Your task to perform on an android device: View the shopping cart on costco. Add usb-b to the cart on costco Image 0: 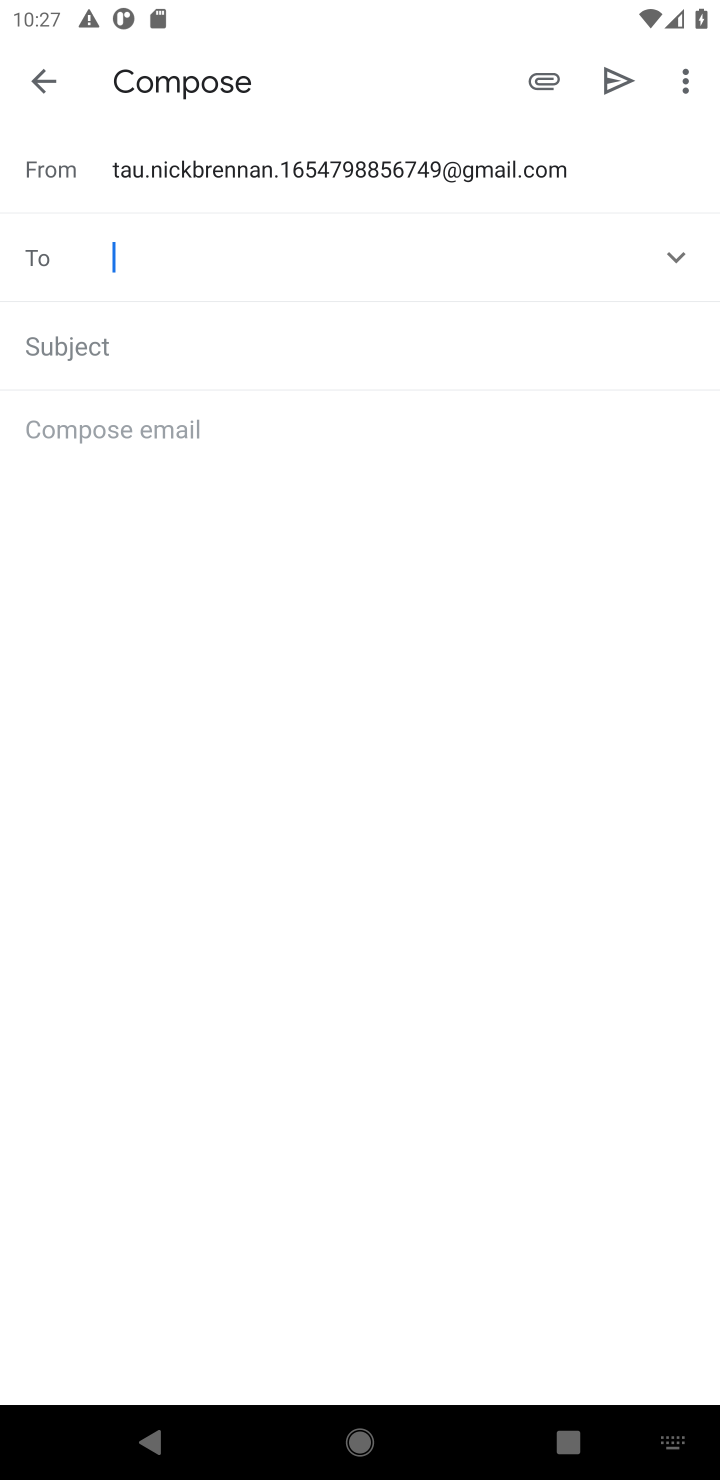
Step 0: press home button
Your task to perform on an android device: View the shopping cart on costco. Add usb-b to the cart on costco Image 1: 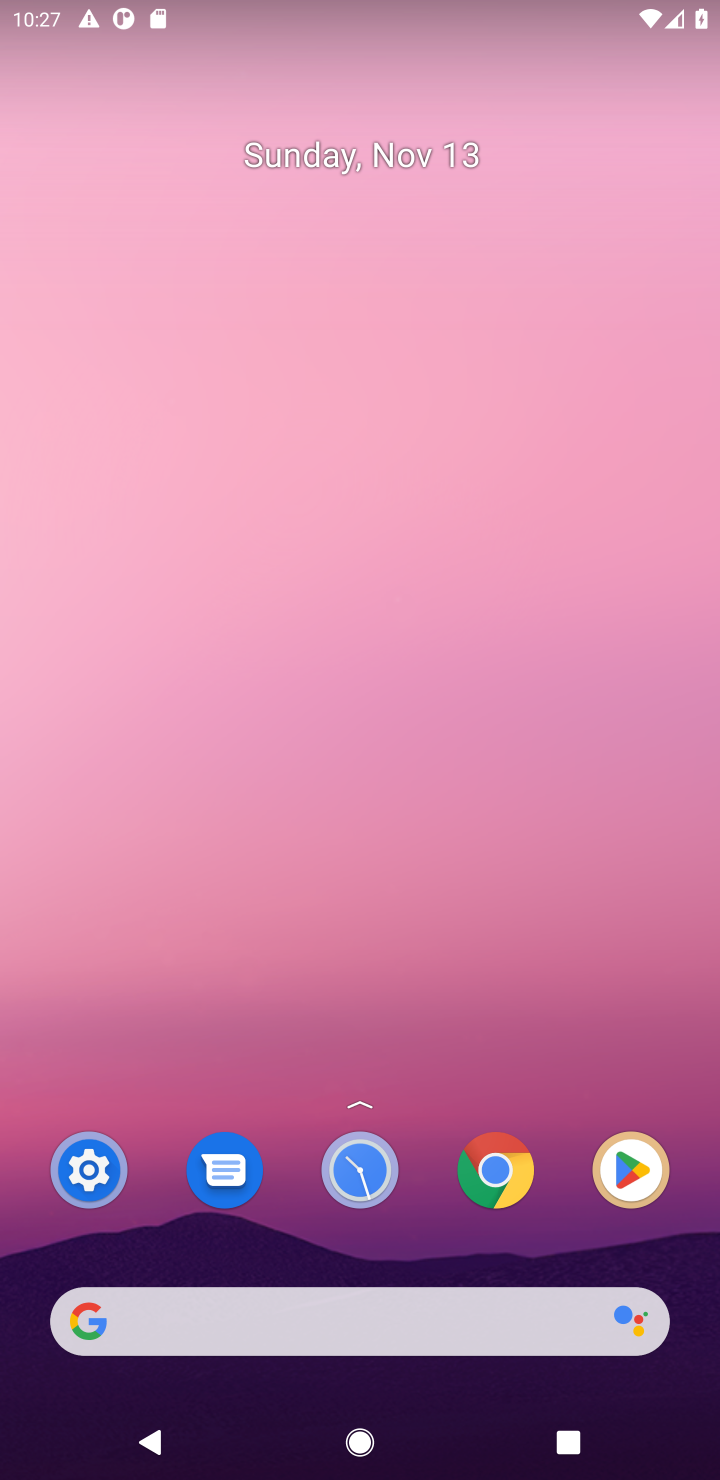
Step 1: click (377, 1321)
Your task to perform on an android device: View the shopping cart on costco. Add usb-b to the cart on costco Image 2: 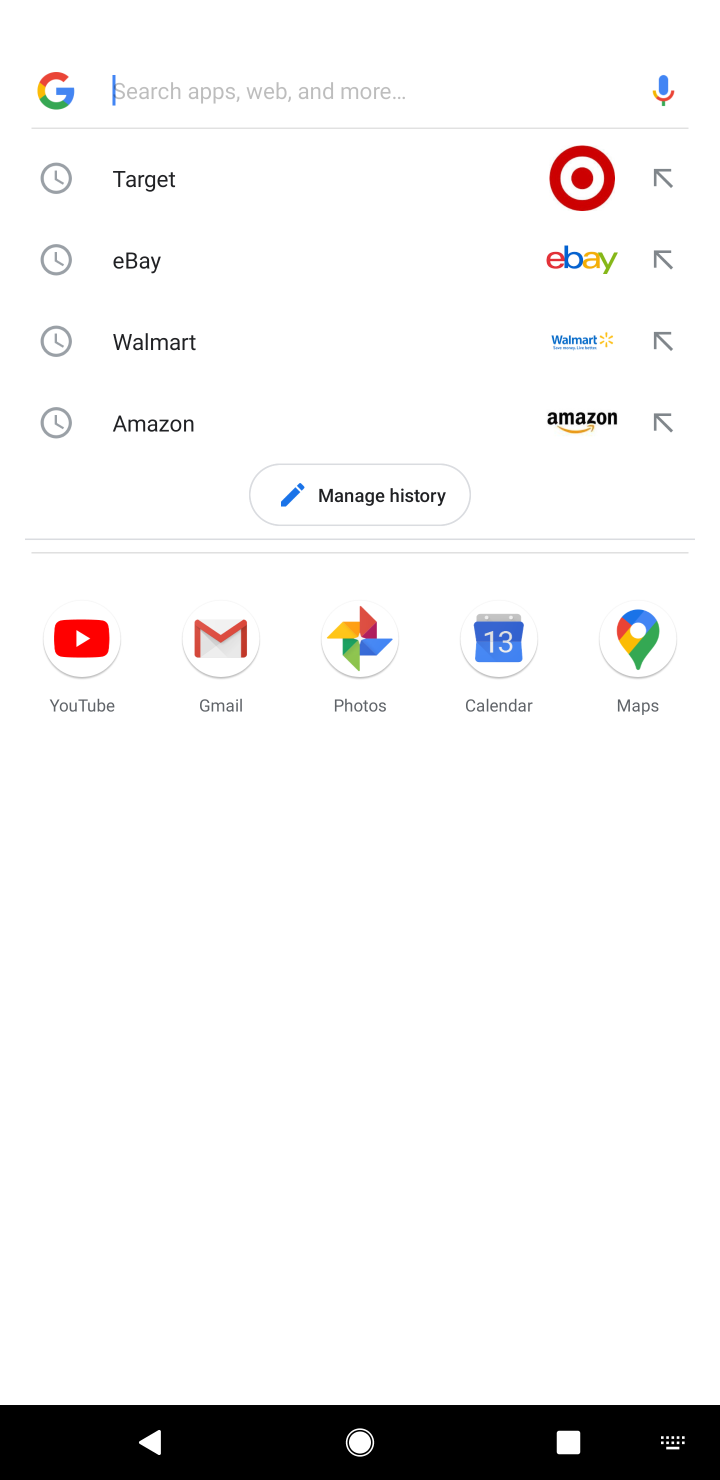
Step 2: type "costco.com"
Your task to perform on an android device: View the shopping cart on costco. Add usb-b to the cart on costco Image 3: 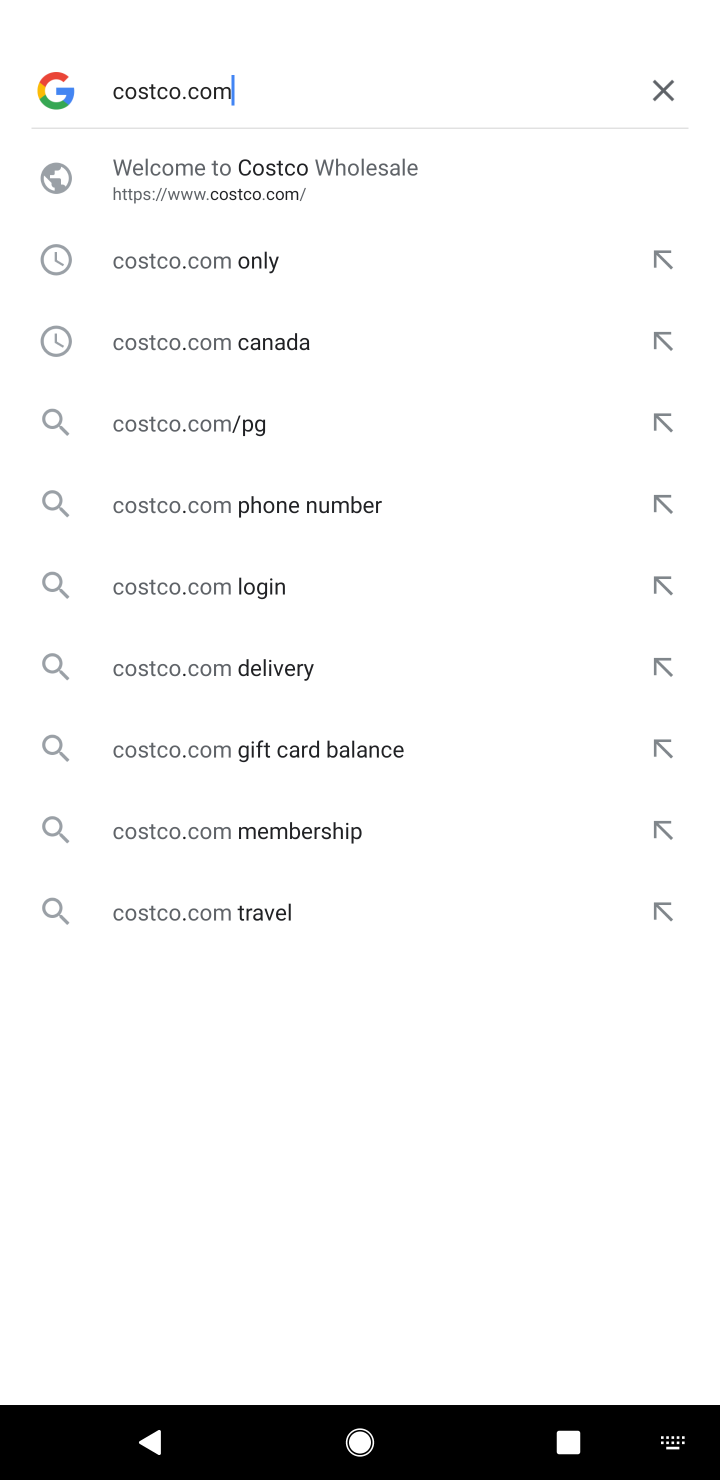
Step 3: click (211, 160)
Your task to perform on an android device: View the shopping cart on costco. Add usb-b to the cart on costco Image 4: 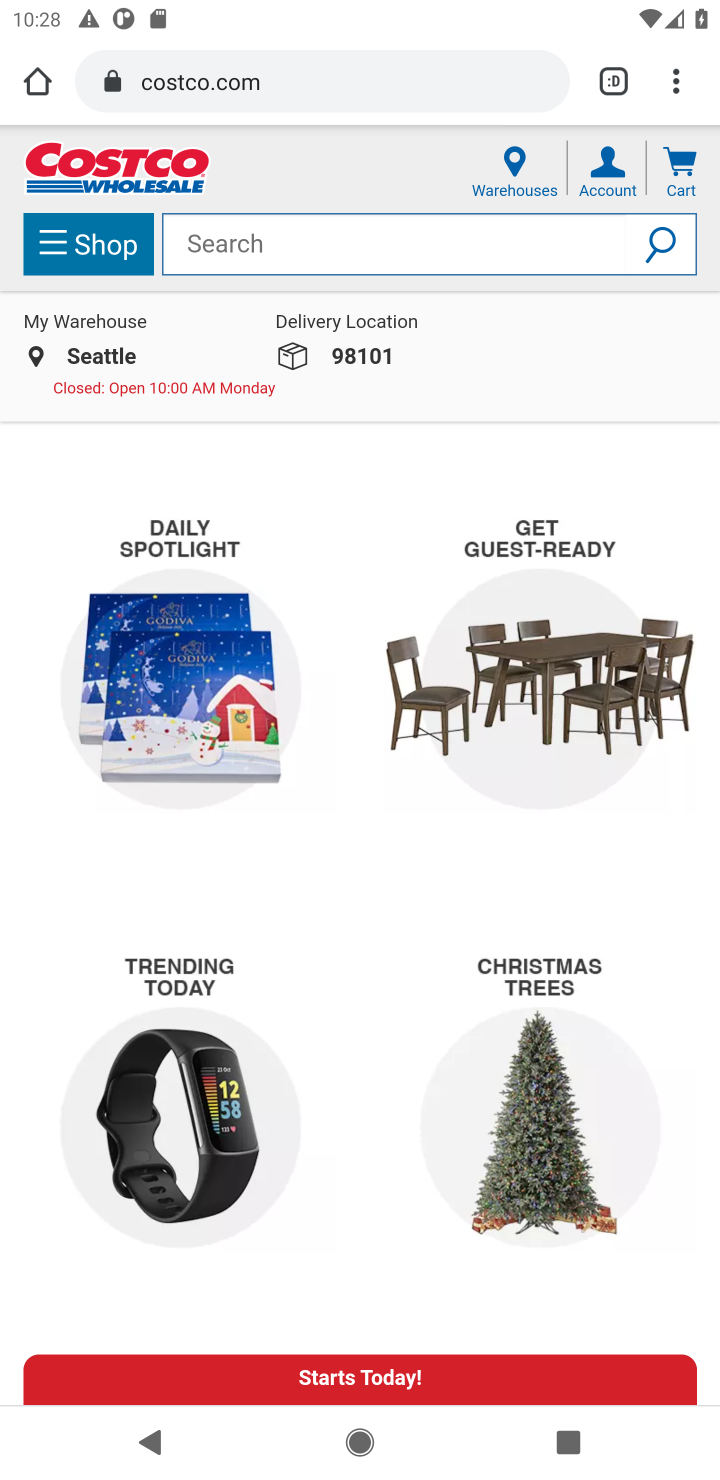
Step 4: click (416, 264)
Your task to perform on an android device: View the shopping cart on costco. Add usb-b to the cart on costco Image 5: 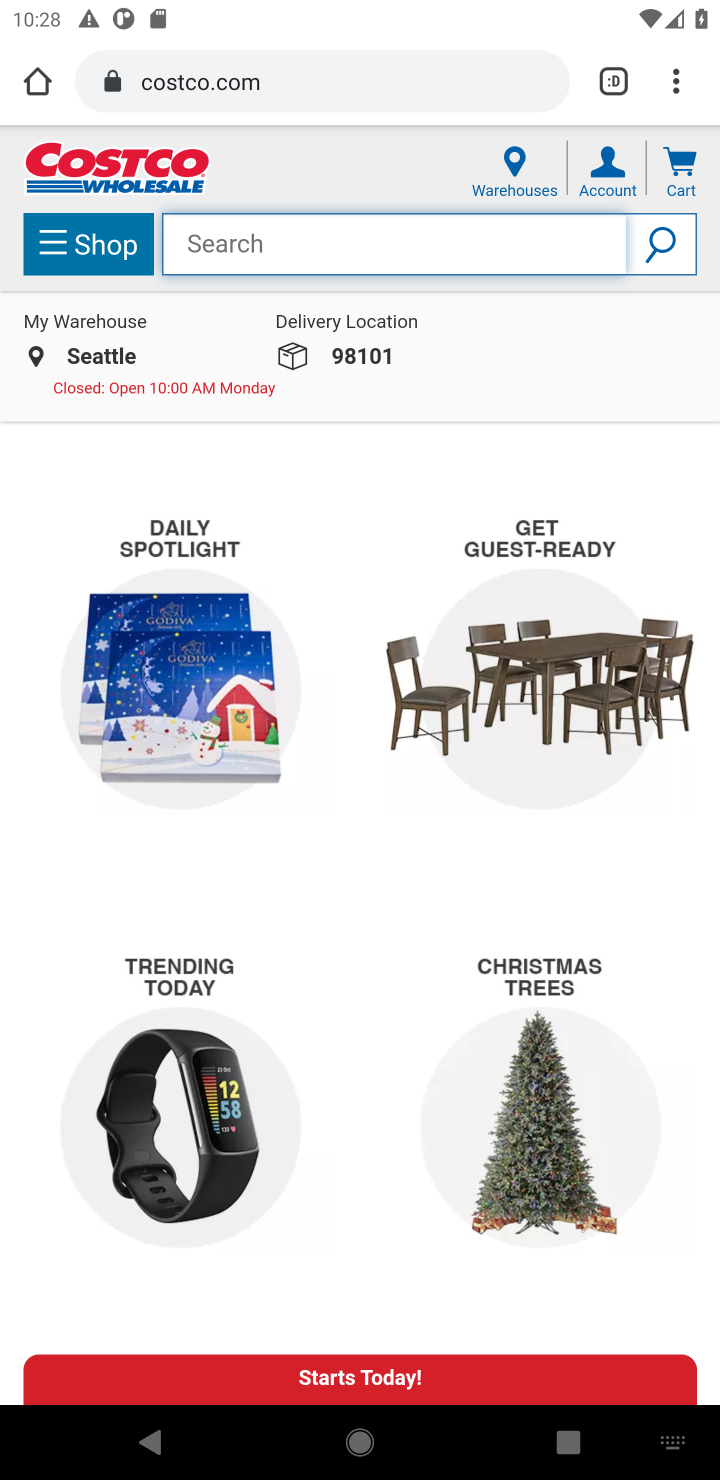
Step 5: type "usb-b"
Your task to perform on an android device: View the shopping cart on costco. Add usb-b to the cart on costco Image 6: 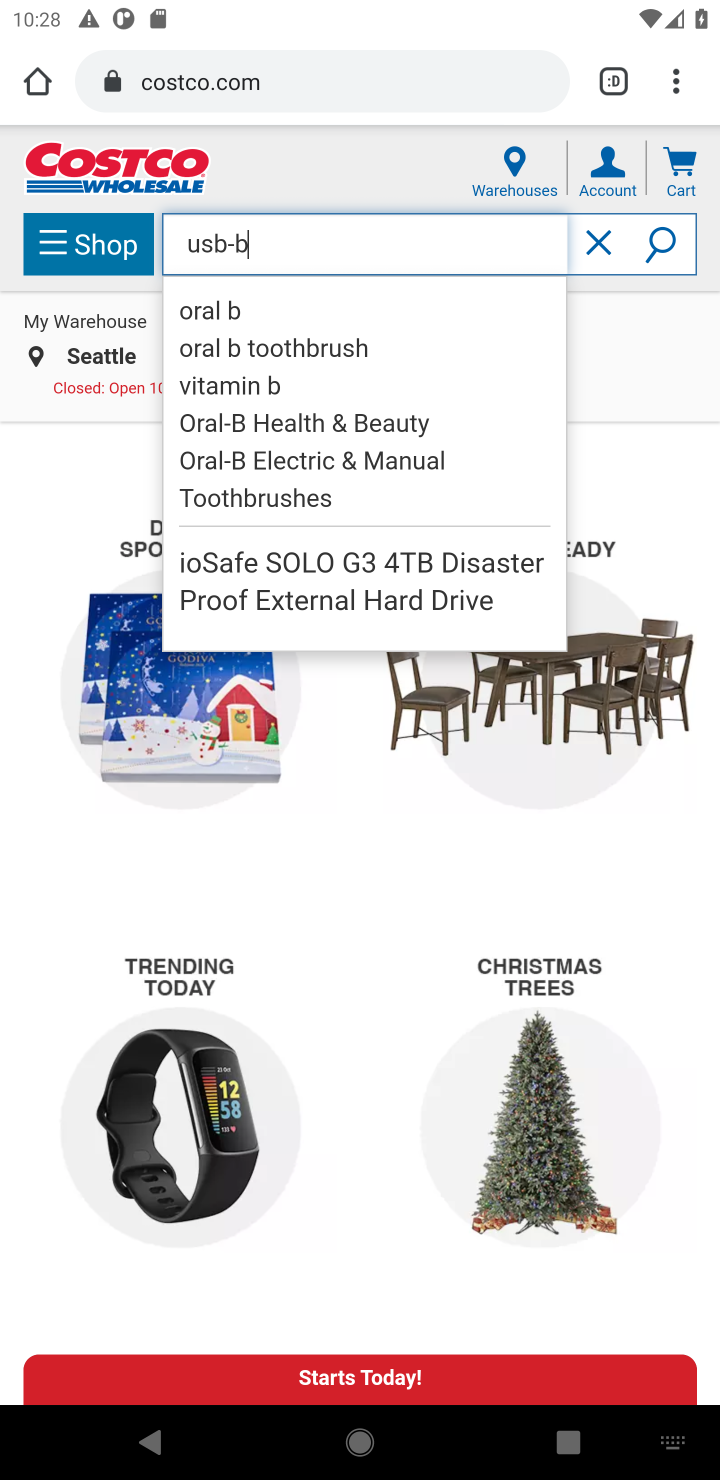
Step 6: click (668, 254)
Your task to perform on an android device: View the shopping cart on costco. Add usb-b to the cart on costco Image 7: 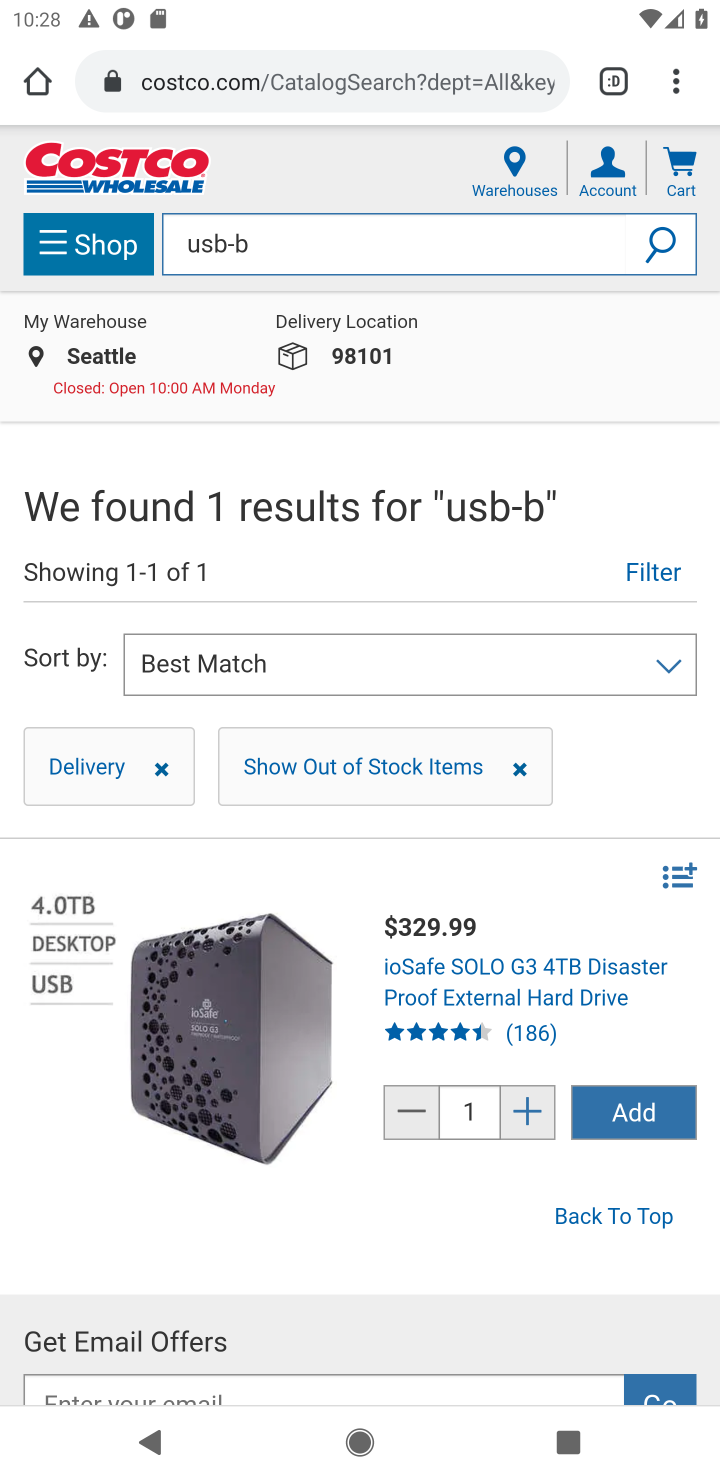
Step 7: click (624, 1092)
Your task to perform on an android device: View the shopping cart on costco. Add usb-b to the cart on costco Image 8: 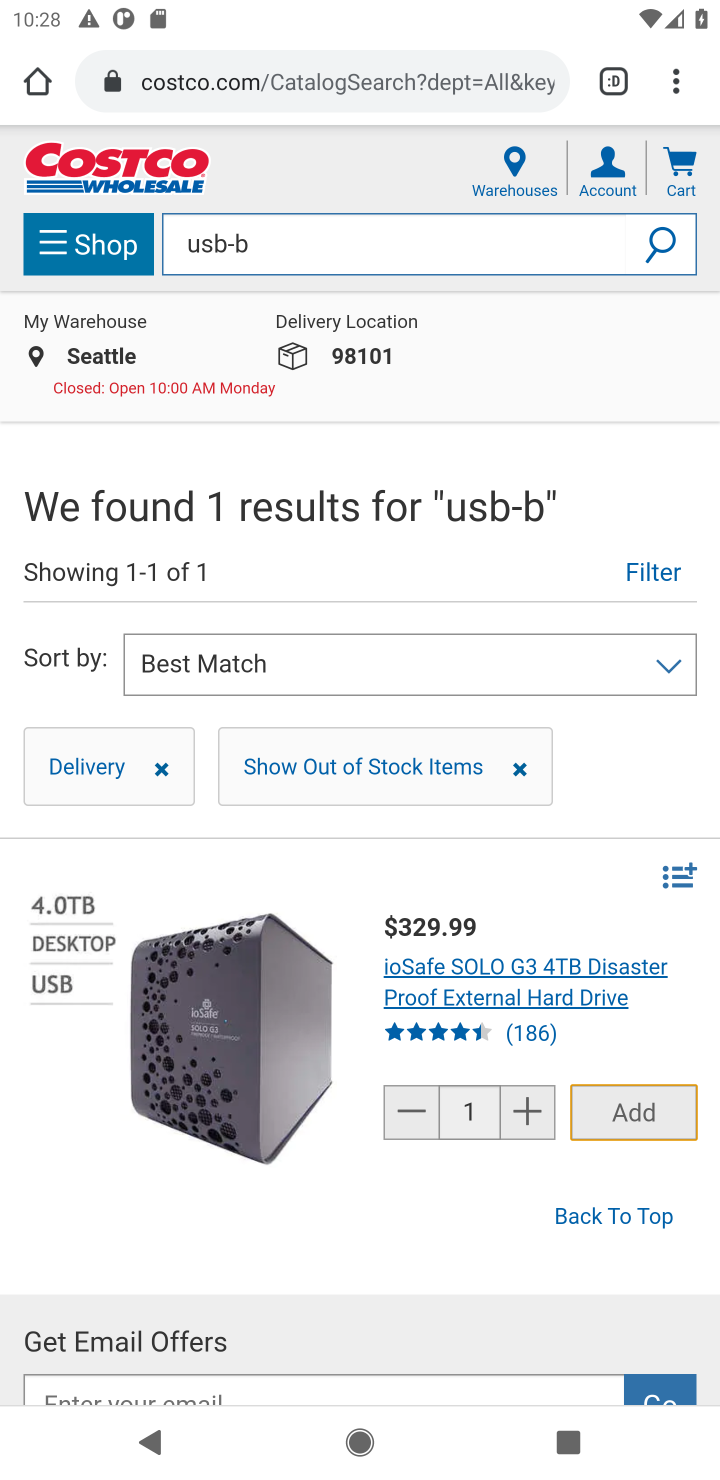
Step 8: task complete